Your task to perform on an android device: change alarm snooze length Image 0: 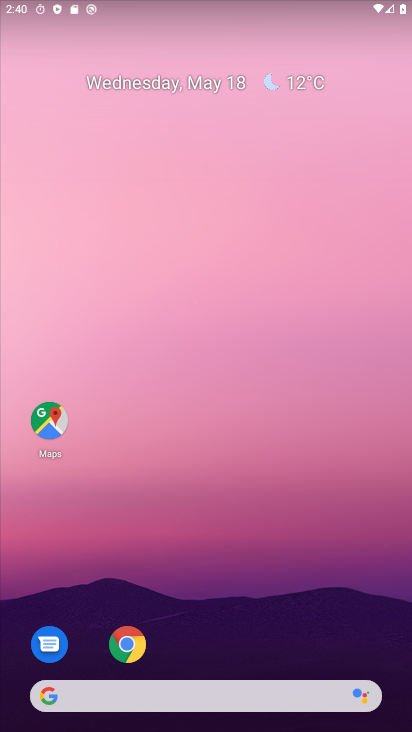
Step 0: press home button
Your task to perform on an android device: change alarm snooze length Image 1: 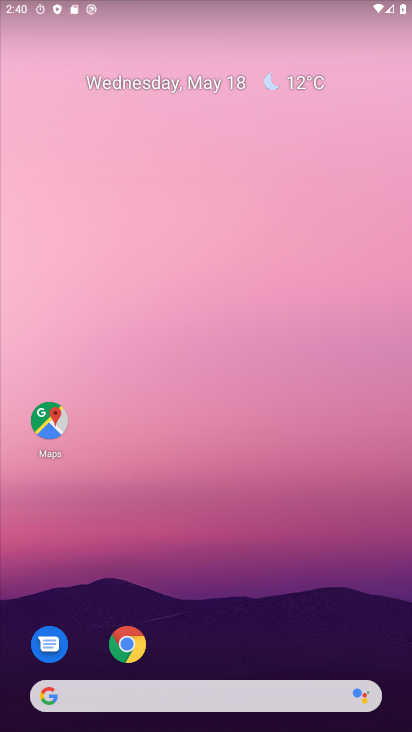
Step 1: drag from (377, 637) to (334, 278)
Your task to perform on an android device: change alarm snooze length Image 2: 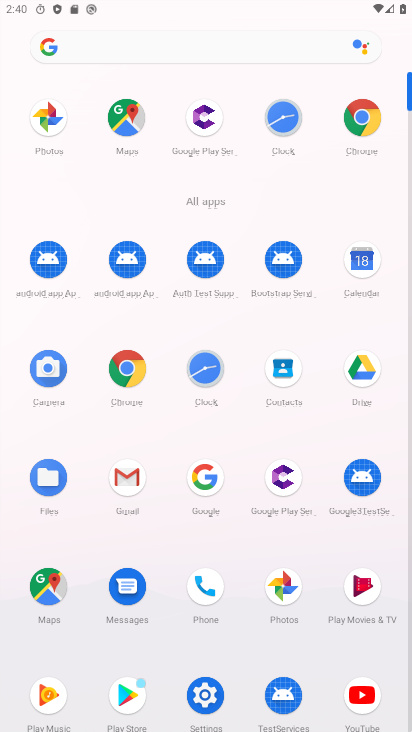
Step 2: click (203, 696)
Your task to perform on an android device: change alarm snooze length Image 3: 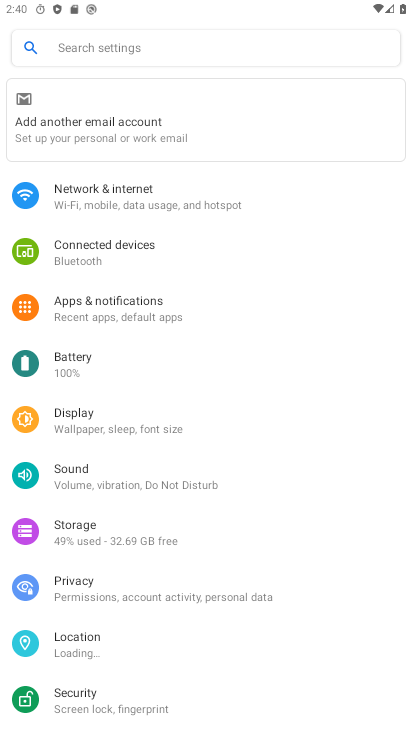
Step 3: press back button
Your task to perform on an android device: change alarm snooze length Image 4: 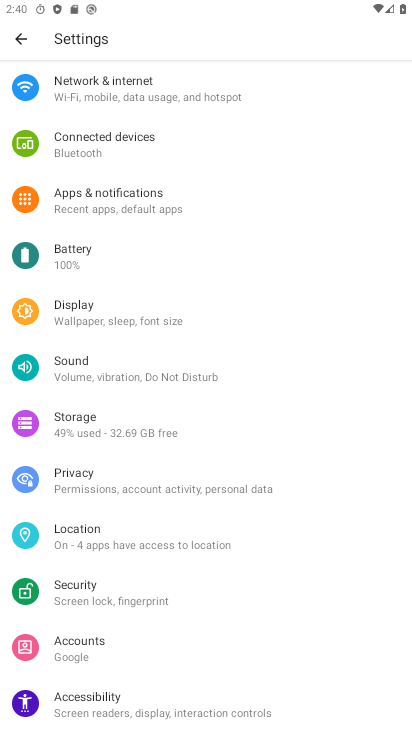
Step 4: press back button
Your task to perform on an android device: change alarm snooze length Image 5: 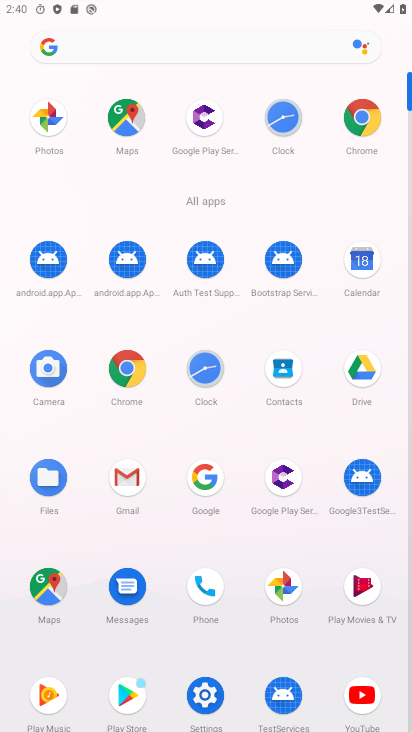
Step 5: click (211, 369)
Your task to perform on an android device: change alarm snooze length Image 6: 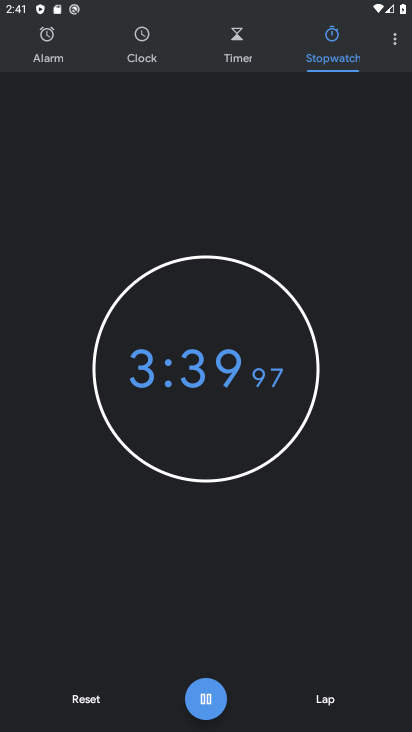
Step 6: click (397, 43)
Your task to perform on an android device: change alarm snooze length Image 7: 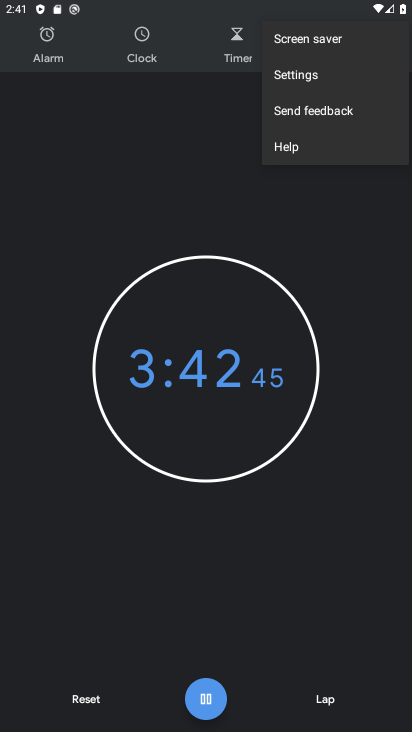
Step 7: click (308, 70)
Your task to perform on an android device: change alarm snooze length Image 8: 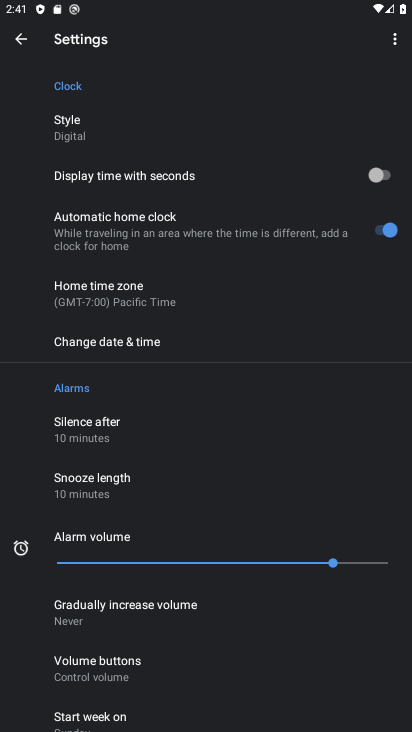
Step 8: drag from (237, 693) to (250, 413)
Your task to perform on an android device: change alarm snooze length Image 9: 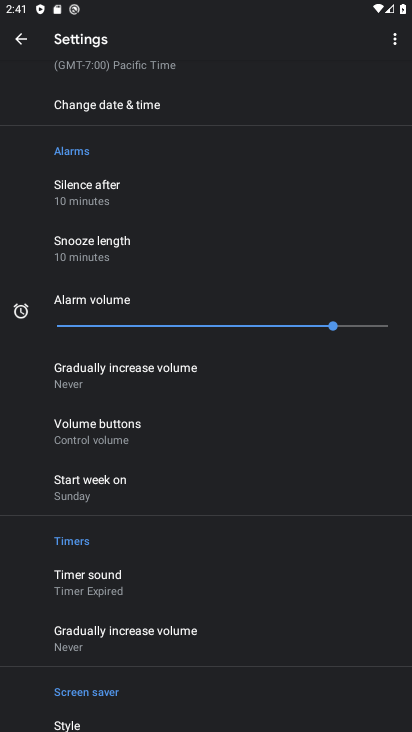
Step 9: click (92, 240)
Your task to perform on an android device: change alarm snooze length Image 10: 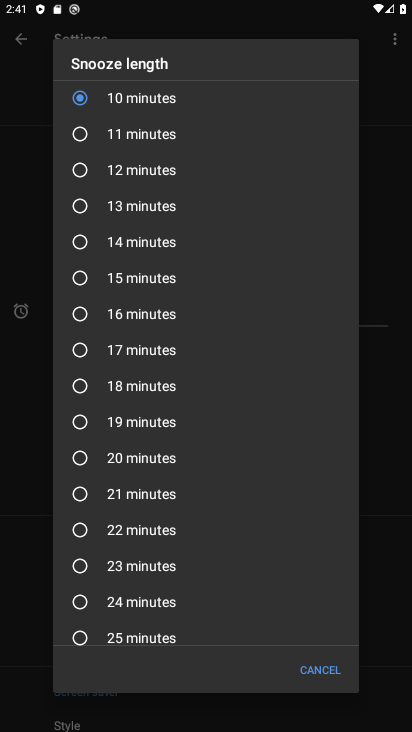
Step 10: click (78, 243)
Your task to perform on an android device: change alarm snooze length Image 11: 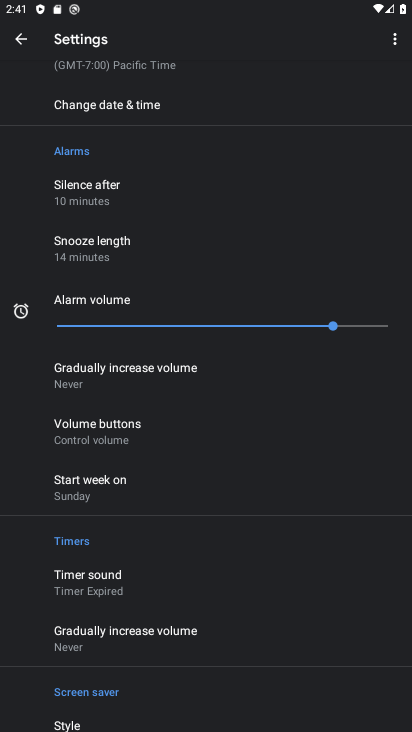
Step 11: task complete